Your task to perform on an android device: Open privacy settings Image 0: 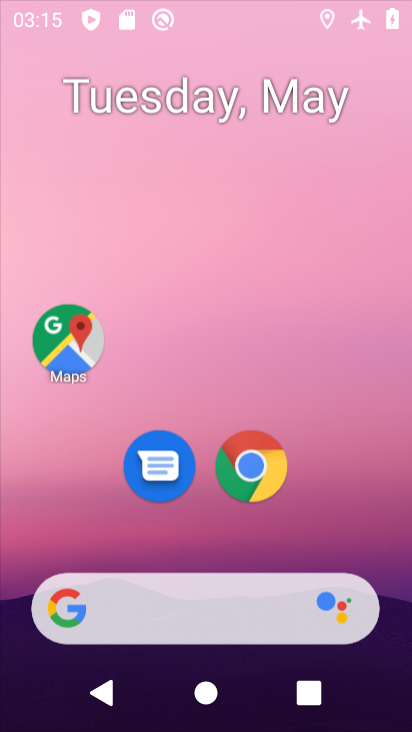
Step 0: drag from (320, 580) to (283, 218)
Your task to perform on an android device: Open privacy settings Image 1: 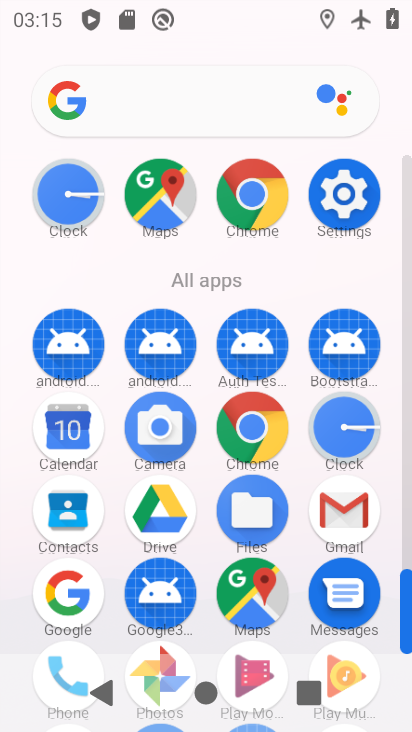
Step 1: click (343, 189)
Your task to perform on an android device: Open privacy settings Image 2: 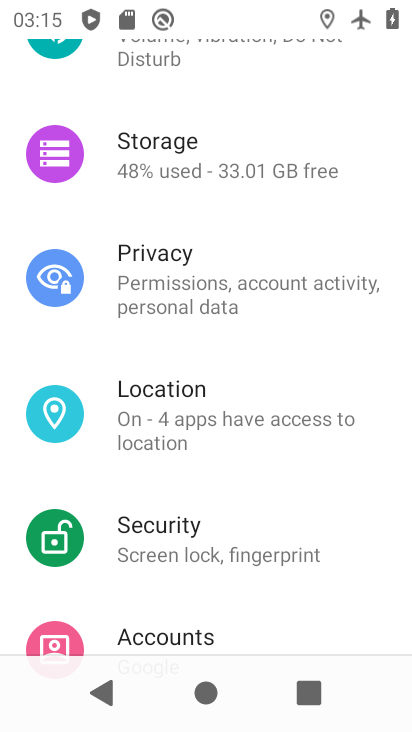
Step 2: press home button
Your task to perform on an android device: Open privacy settings Image 3: 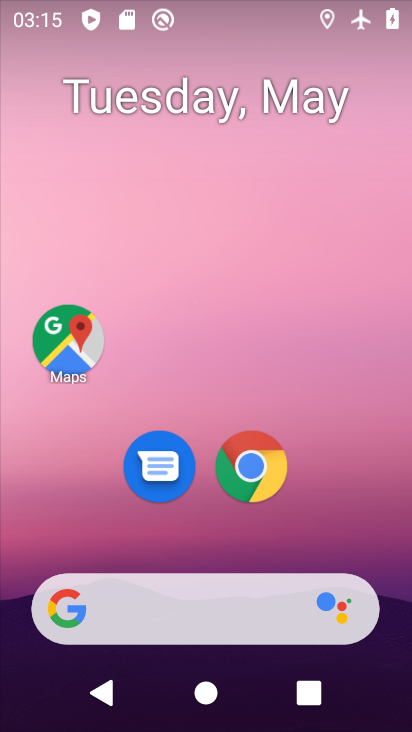
Step 3: drag from (182, 530) to (240, 111)
Your task to perform on an android device: Open privacy settings Image 4: 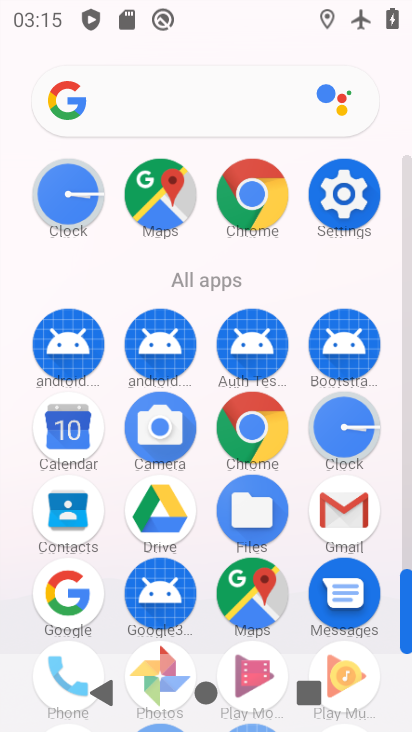
Step 4: click (264, 192)
Your task to perform on an android device: Open privacy settings Image 5: 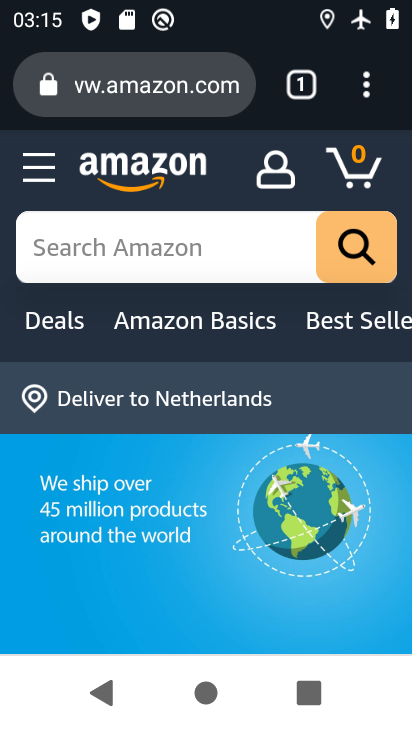
Step 5: click (361, 103)
Your task to perform on an android device: Open privacy settings Image 6: 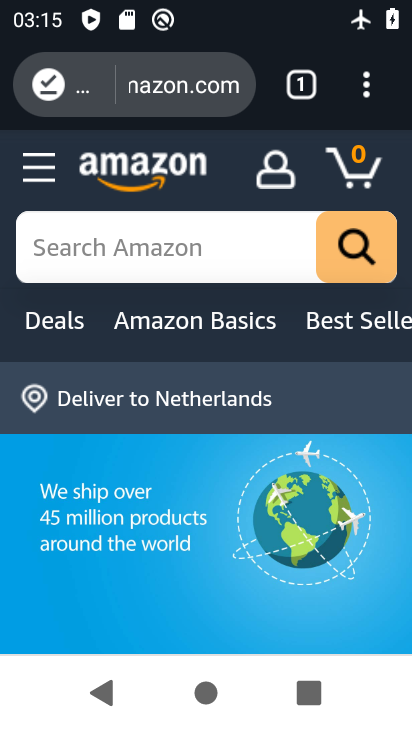
Step 6: click (346, 86)
Your task to perform on an android device: Open privacy settings Image 7: 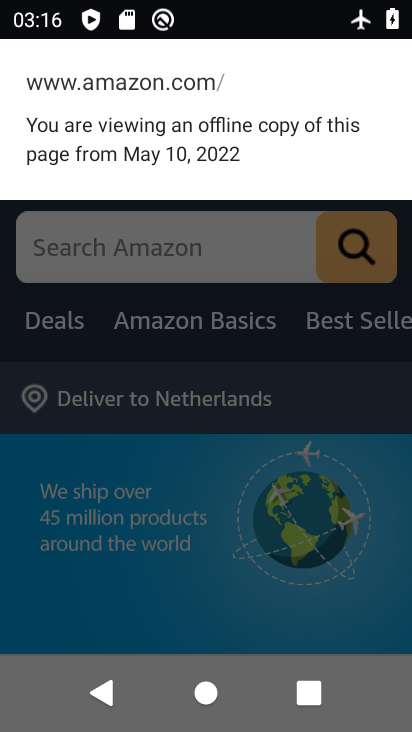
Step 7: press back button
Your task to perform on an android device: Open privacy settings Image 8: 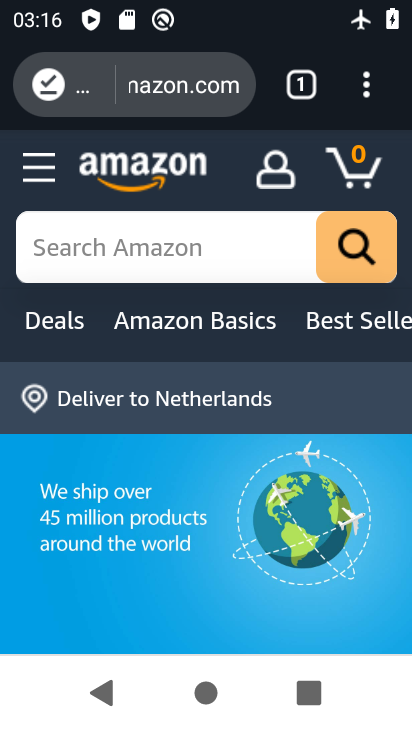
Step 8: click (354, 97)
Your task to perform on an android device: Open privacy settings Image 9: 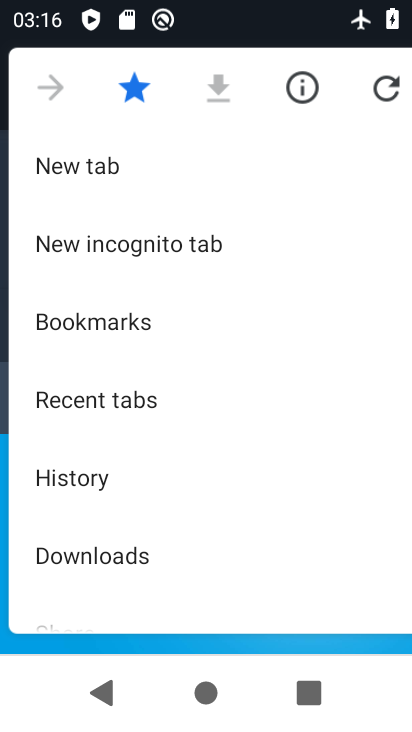
Step 9: drag from (139, 570) to (196, 188)
Your task to perform on an android device: Open privacy settings Image 10: 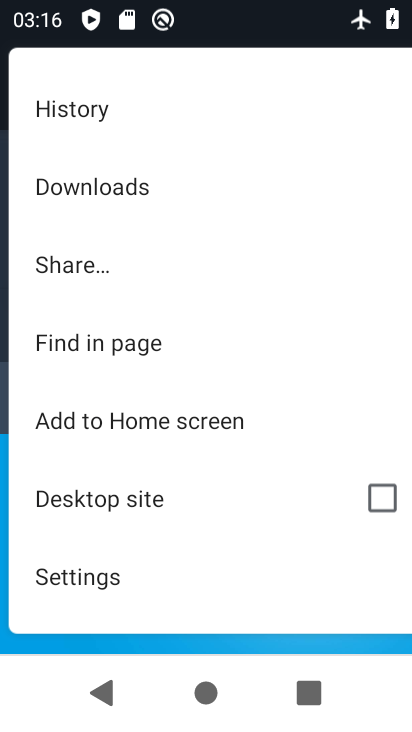
Step 10: click (128, 571)
Your task to perform on an android device: Open privacy settings Image 11: 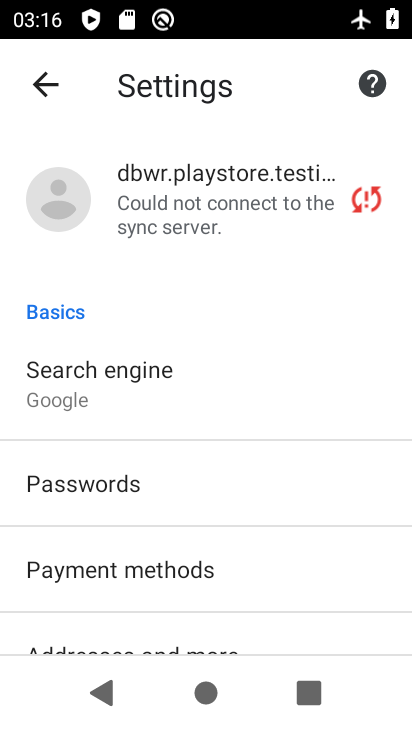
Step 11: drag from (84, 570) to (212, 181)
Your task to perform on an android device: Open privacy settings Image 12: 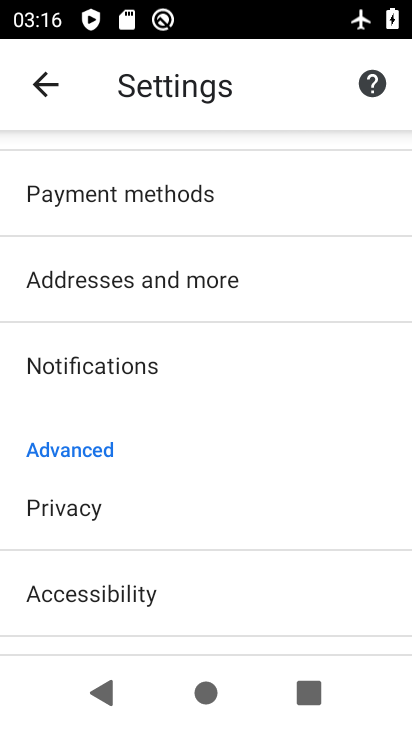
Step 12: click (83, 511)
Your task to perform on an android device: Open privacy settings Image 13: 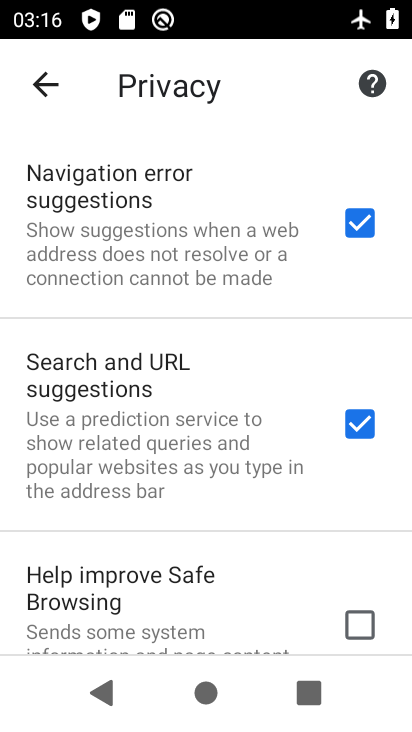
Step 13: task complete